Your task to perform on an android device: change your default location settings in chrome Image 0: 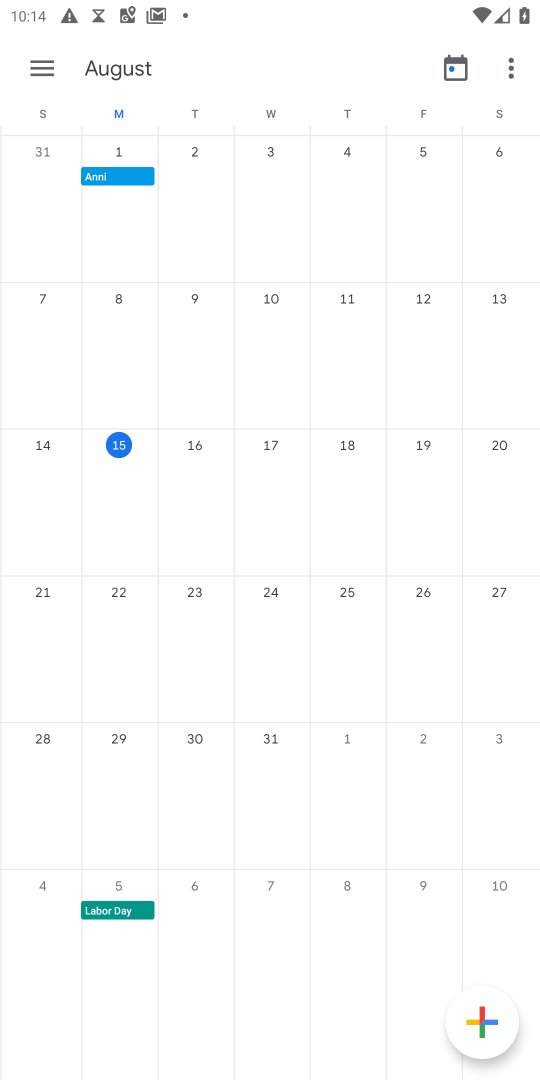
Step 0: press home button
Your task to perform on an android device: change your default location settings in chrome Image 1: 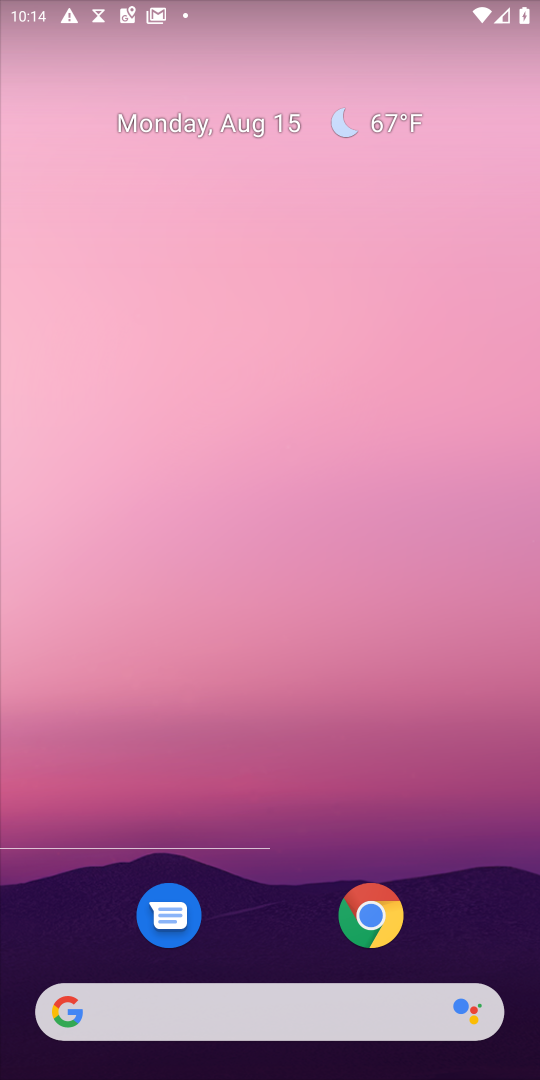
Step 1: drag from (261, 896) to (287, 177)
Your task to perform on an android device: change your default location settings in chrome Image 2: 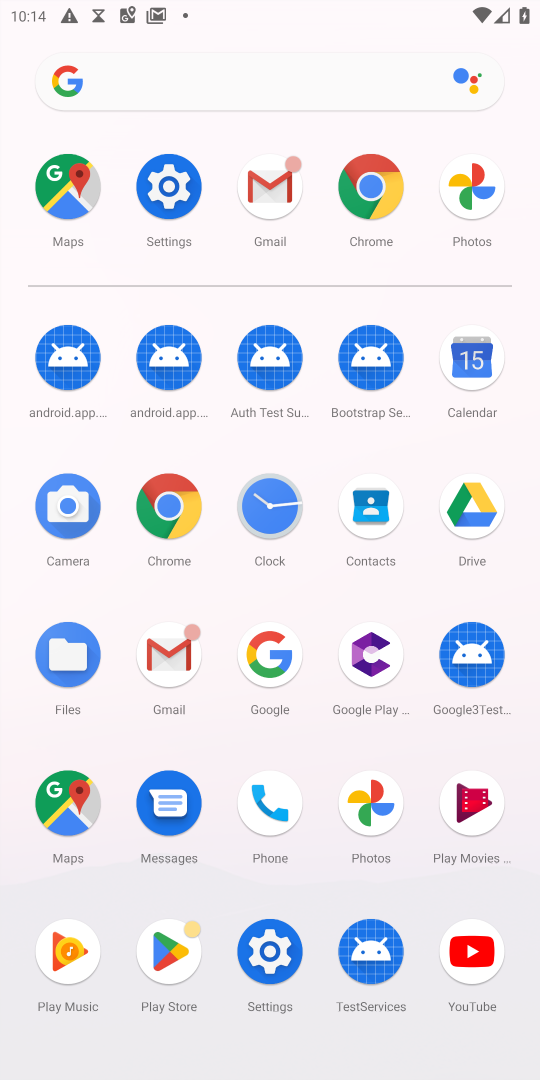
Step 2: click (182, 175)
Your task to perform on an android device: change your default location settings in chrome Image 3: 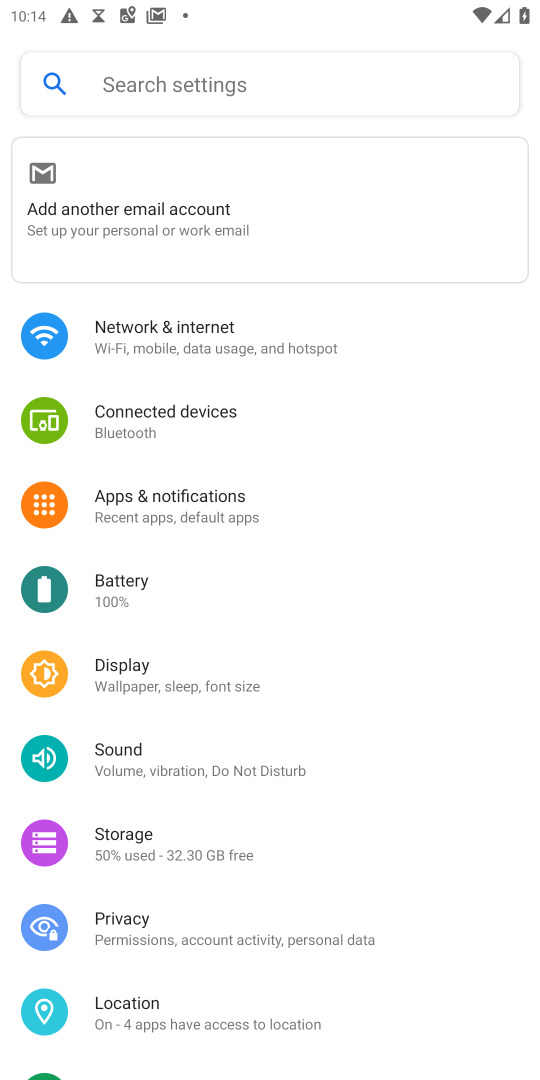
Step 3: click (203, 1011)
Your task to perform on an android device: change your default location settings in chrome Image 4: 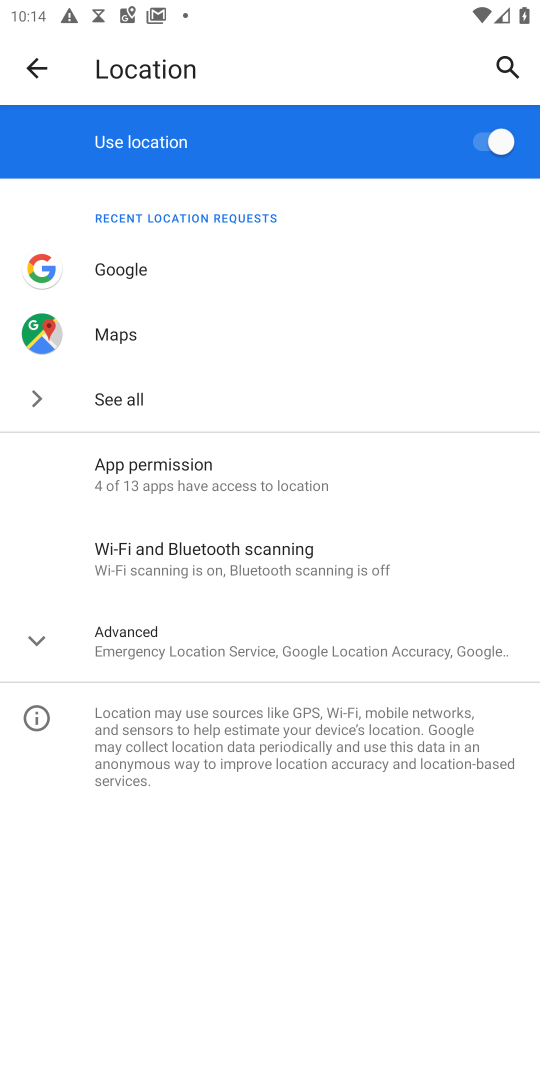
Step 4: click (500, 144)
Your task to perform on an android device: change your default location settings in chrome Image 5: 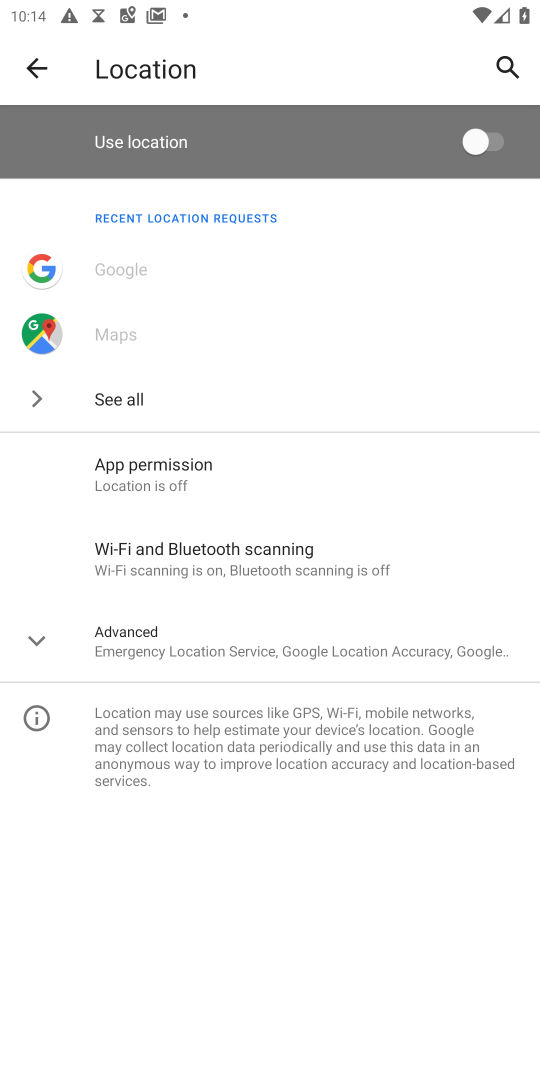
Step 5: task complete